Your task to perform on an android device: Go to Google Image 0: 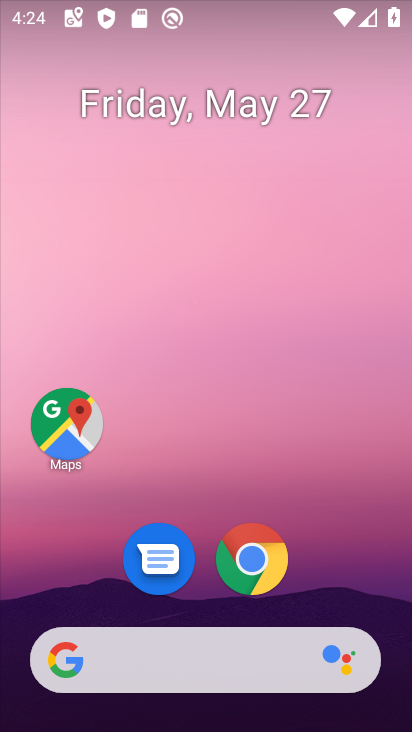
Step 0: click (209, 328)
Your task to perform on an android device: Go to Google Image 1: 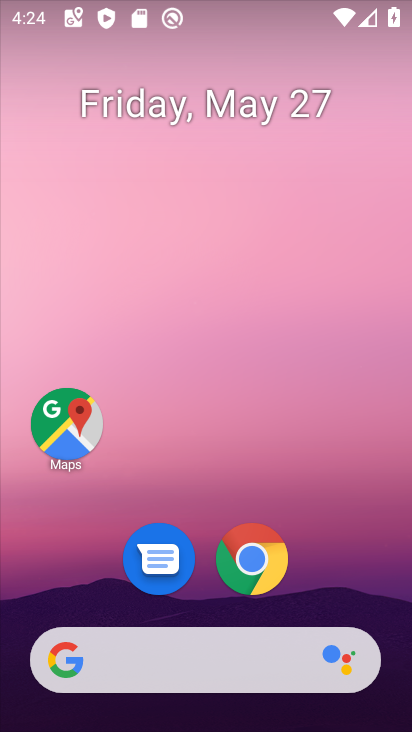
Step 1: drag from (389, 694) to (363, 162)
Your task to perform on an android device: Go to Google Image 2: 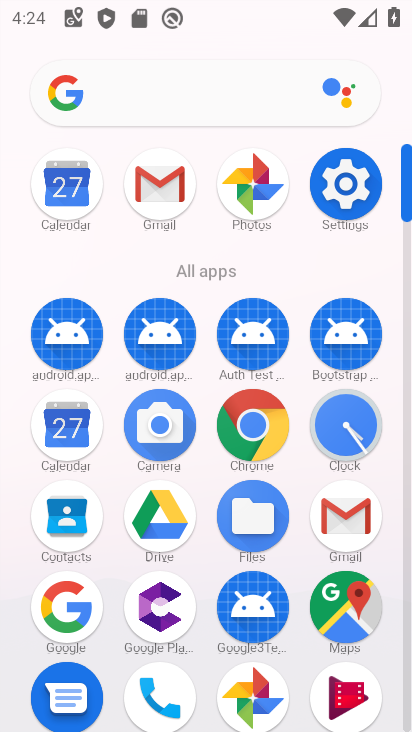
Step 2: click (43, 622)
Your task to perform on an android device: Go to Google Image 3: 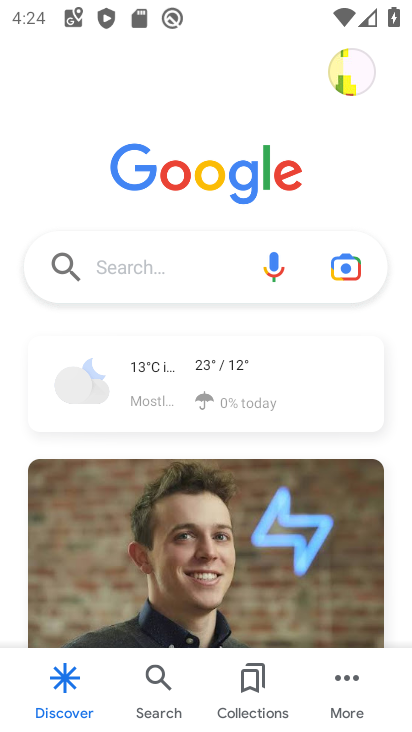
Step 3: task complete